Your task to perform on an android device: Go to Reddit.com Image 0: 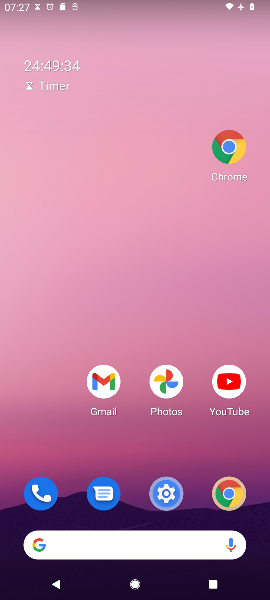
Step 0: press home button
Your task to perform on an android device: Go to Reddit.com Image 1: 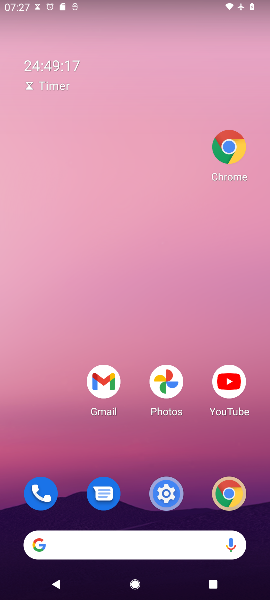
Step 1: click (40, 544)
Your task to perform on an android device: Go to Reddit.com Image 2: 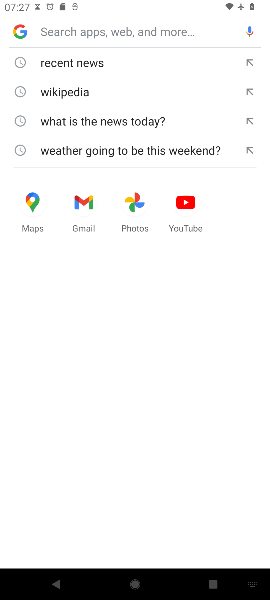
Step 2: type "Reddit.com"
Your task to perform on an android device: Go to Reddit.com Image 3: 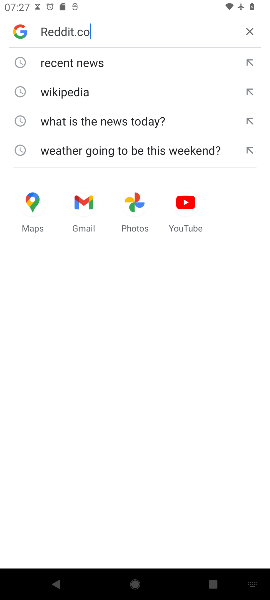
Step 3: press enter
Your task to perform on an android device: Go to Reddit.com Image 4: 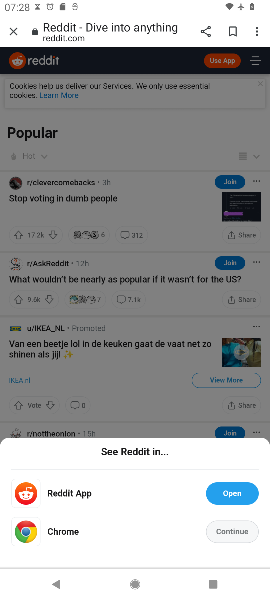
Step 4: task complete